Your task to perform on an android device: Go to settings Image 0: 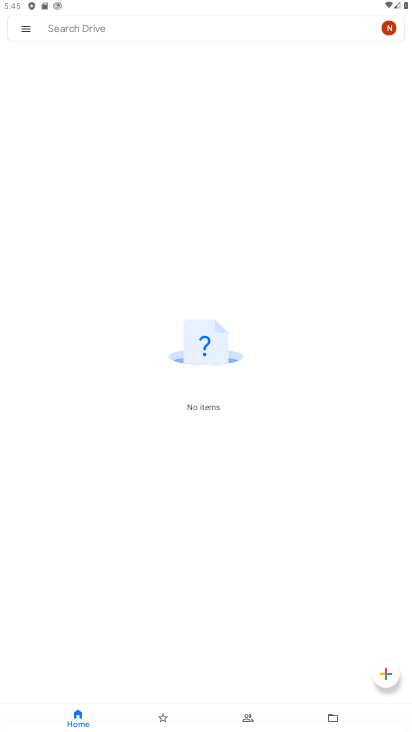
Step 0: press home button
Your task to perform on an android device: Go to settings Image 1: 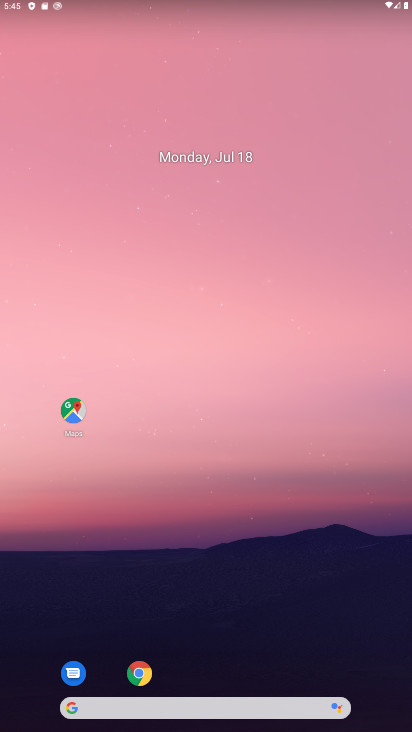
Step 1: drag from (273, 470) to (277, 63)
Your task to perform on an android device: Go to settings Image 2: 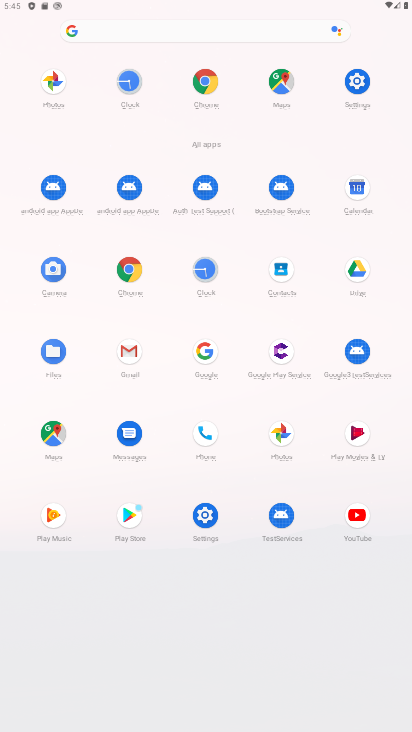
Step 2: click (360, 82)
Your task to perform on an android device: Go to settings Image 3: 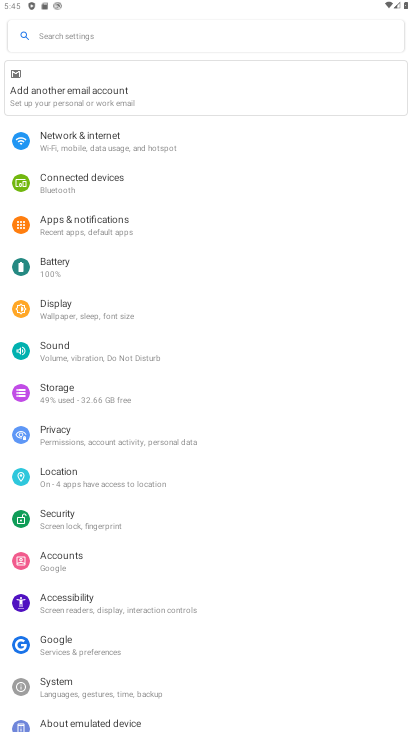
Step 3: task complete